Your task to perform on an android device: toggle javascript in the chrome app Image 0: 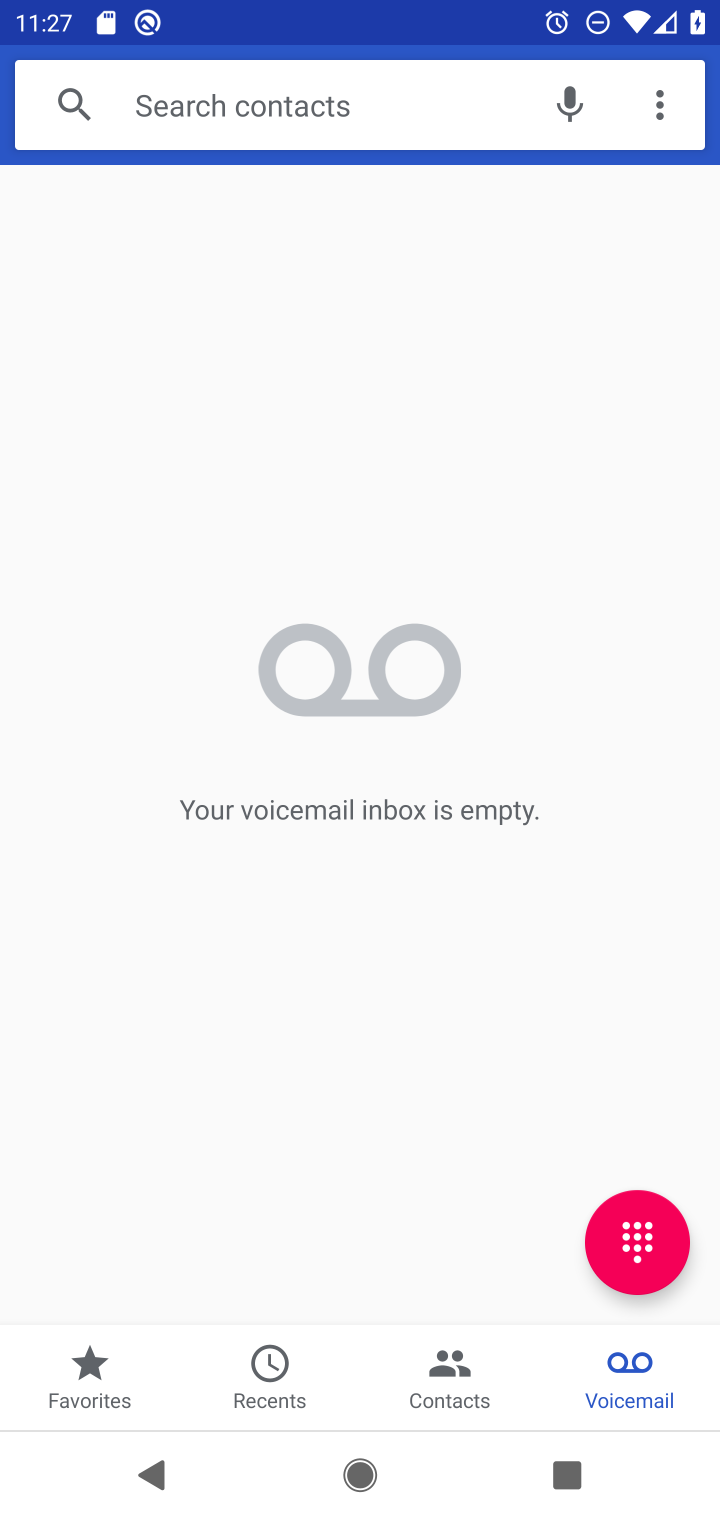
Step 0: press home button
Your task to perform on an android device: toggle javascript in the chrome app Image 1: 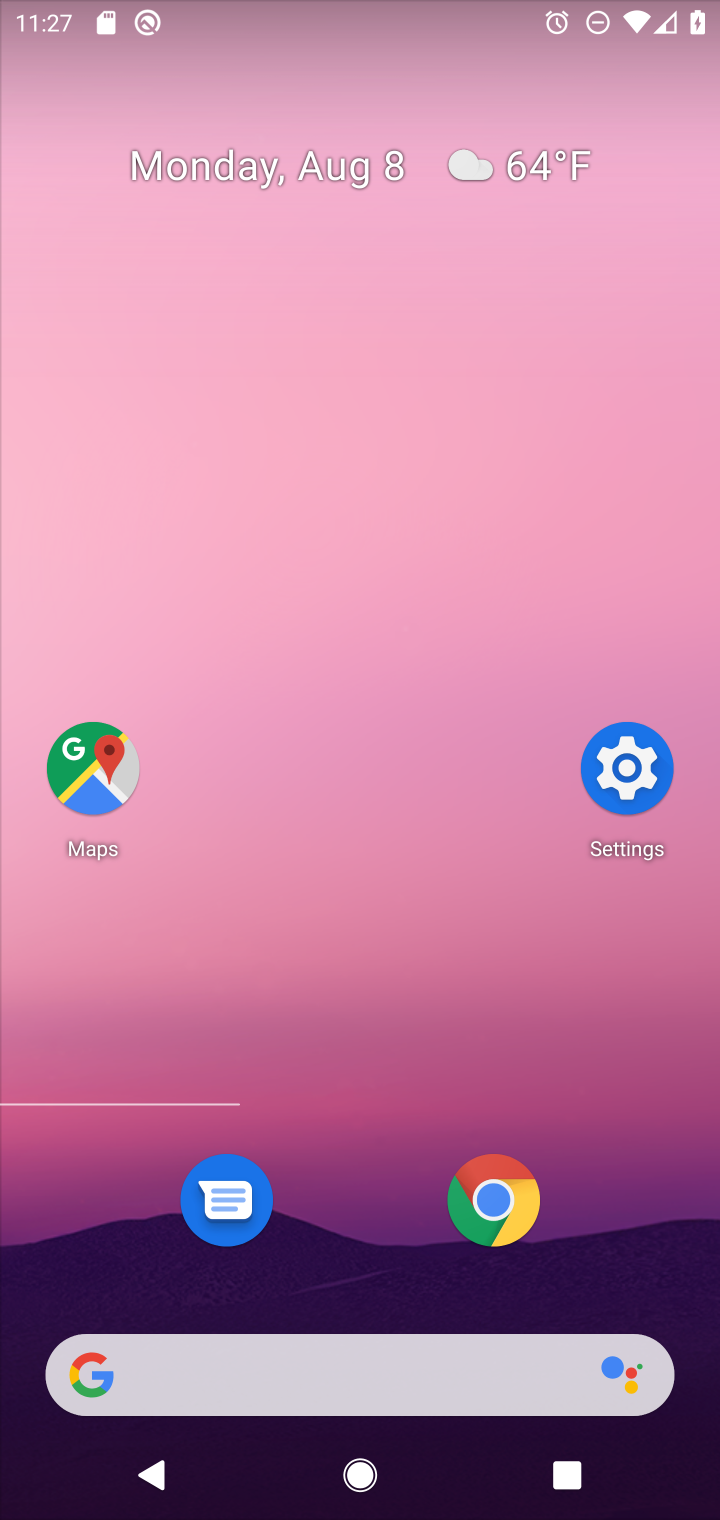
Step 1: click (484, 1187)
Your task to perform on an android device: toggle javascript in the chrome app Image 2: 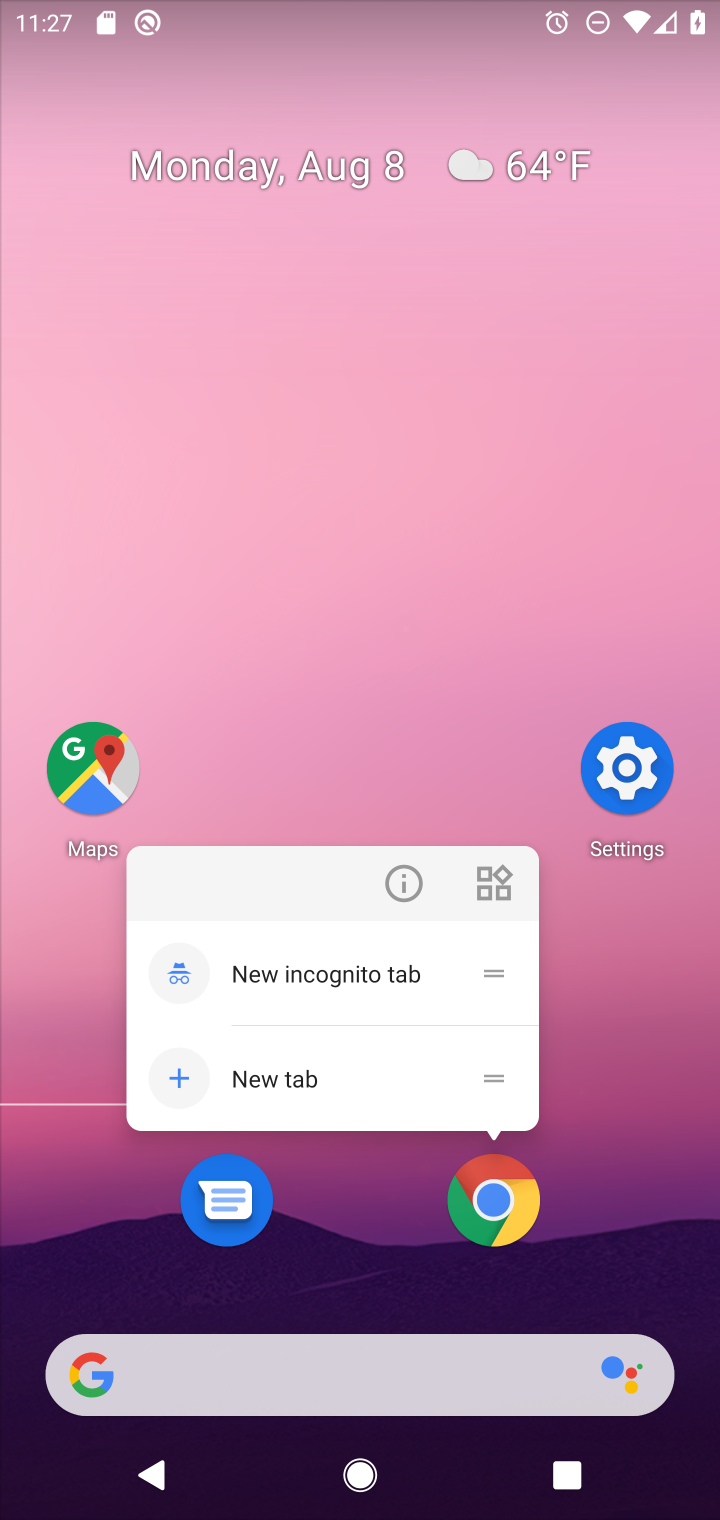
Step 2: click (500, 1185)
Your task to perform on an android device: toggle javascript in the chrome app Image 3: 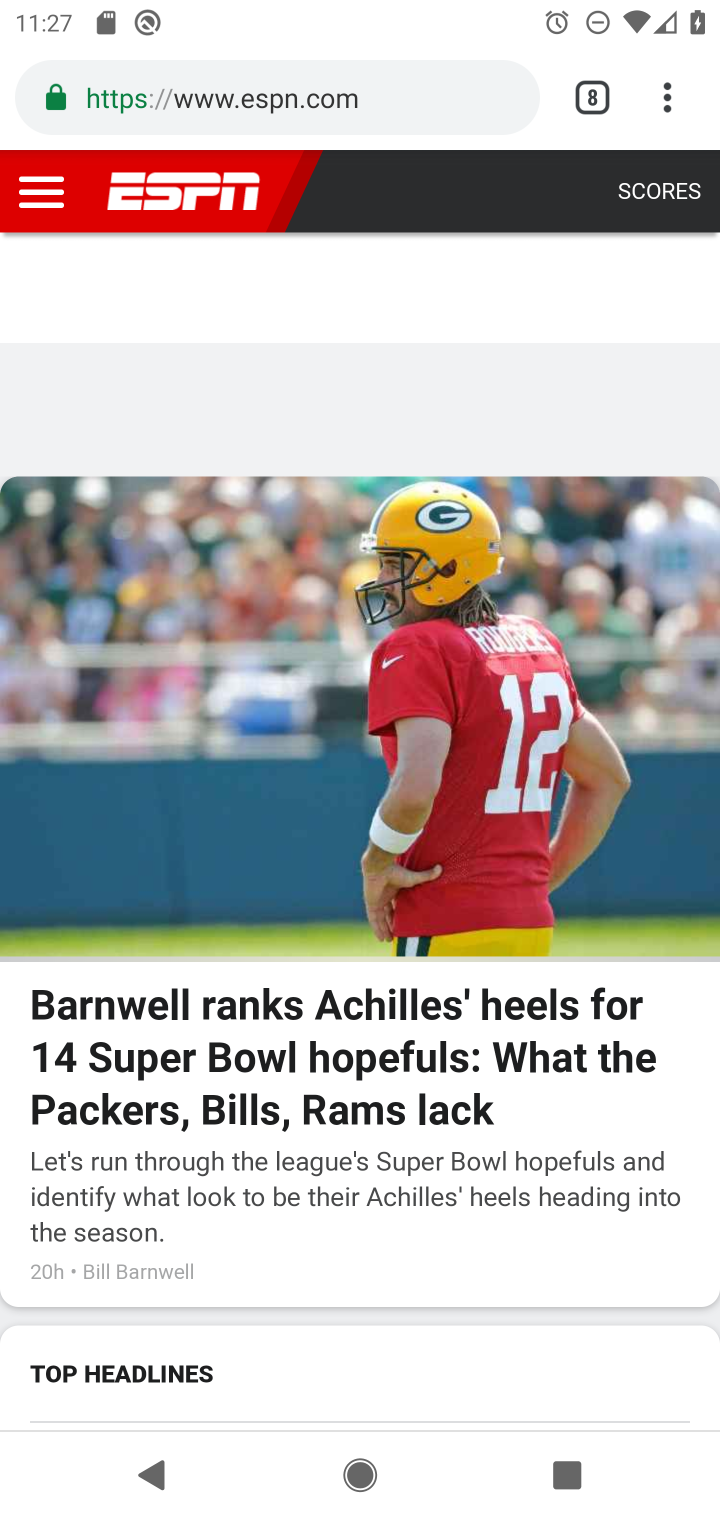
Step 3: drag from (656, 98) to (425, 1284)
Your task to perform on an android device: toggle javascript in the chrome app Image 4: 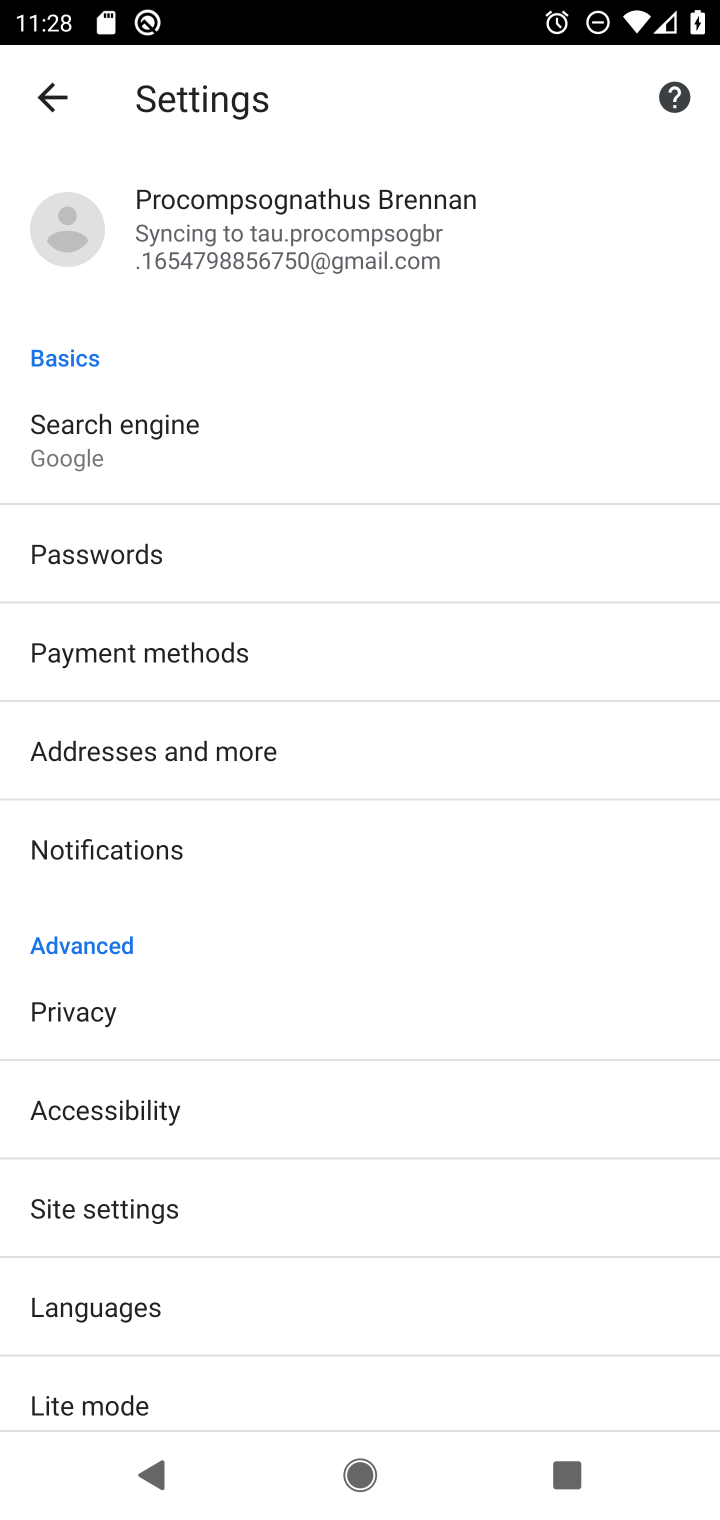
Step 4: click (140, 1203)
Your task to perform on an android device: toggle javascript in the chrome app Image 5: 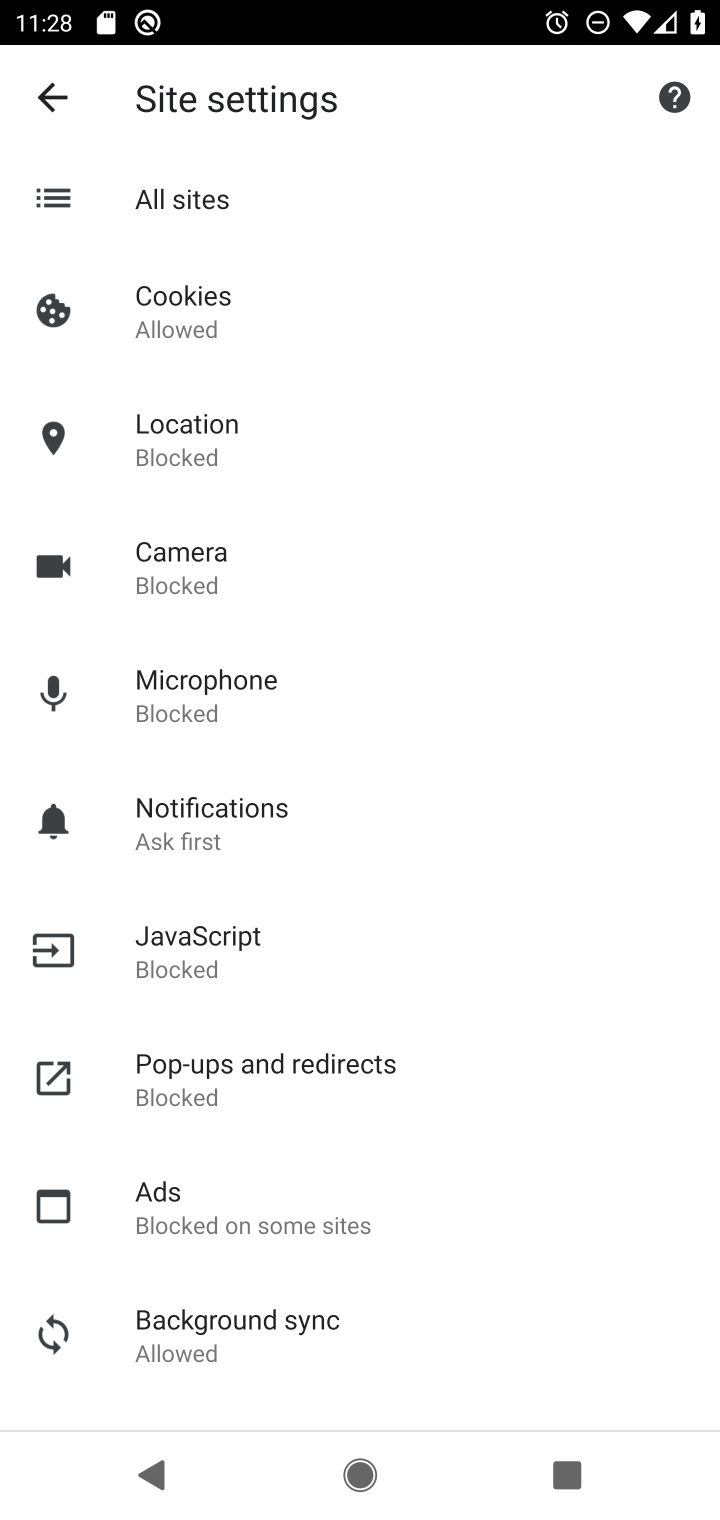
Step 5: click (210, 932)
Your task to perform on an android device: toggle javascript in the chrome app Image 6: 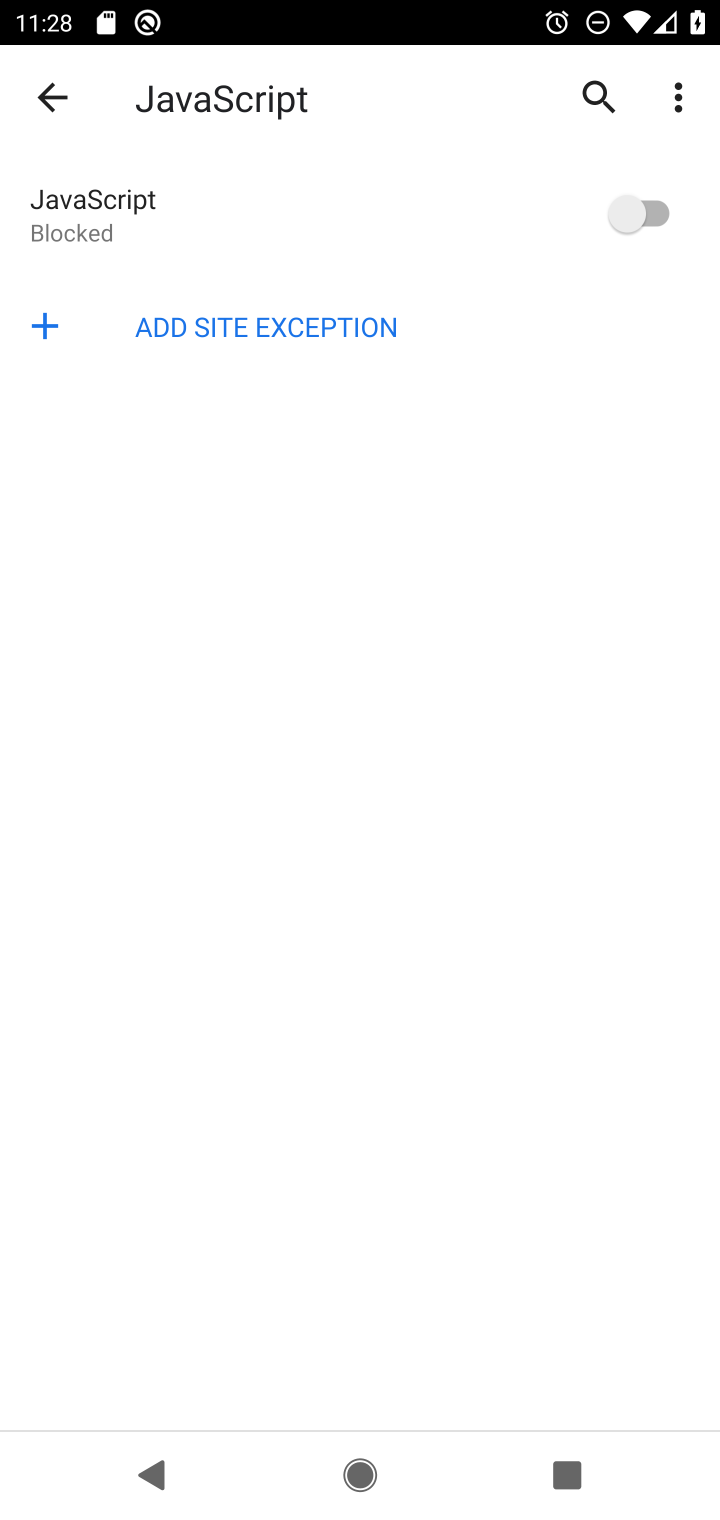
Step 6: click (661, 208)
Your task to perform on an android device: toggle javascript in the chrome app Image 7: 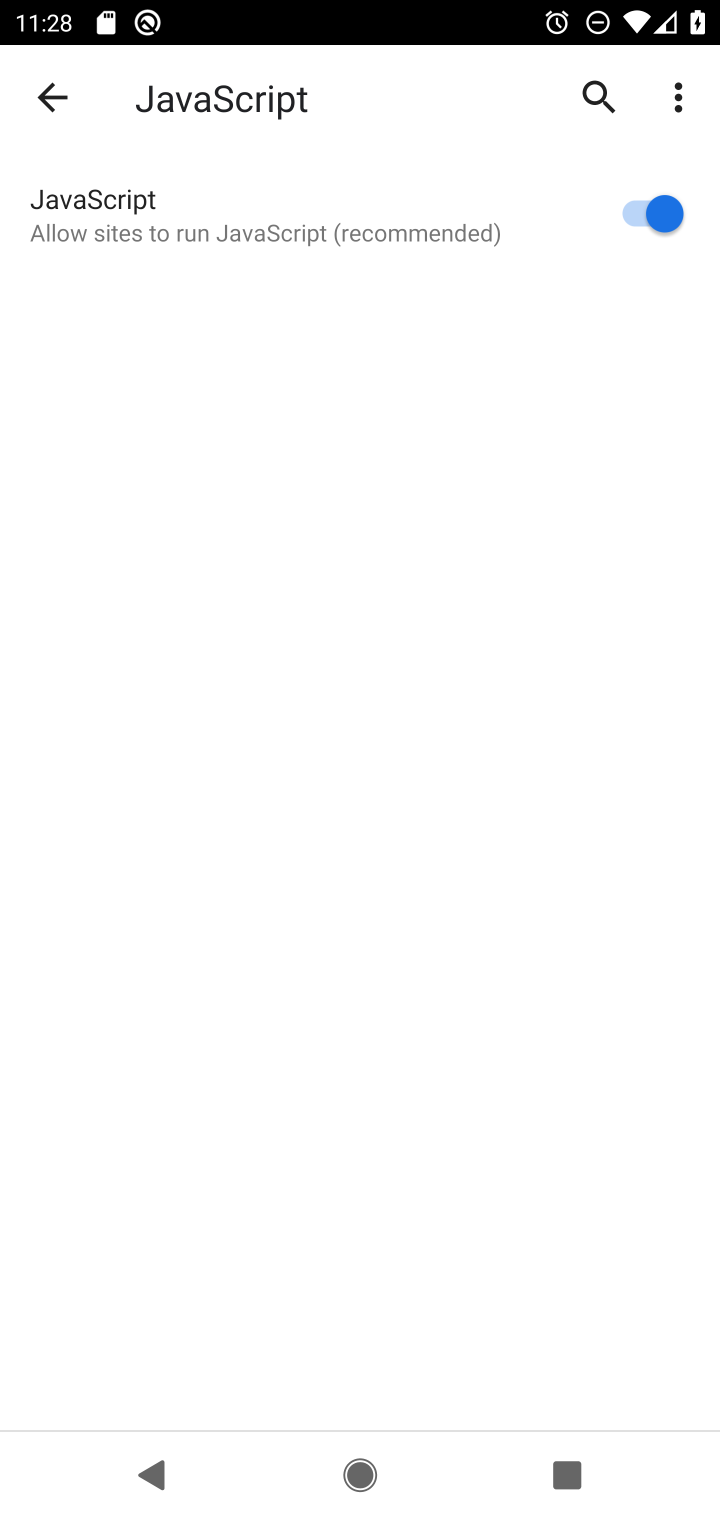
Step 7: task complete